Your task to perform on an android device: turn smart compose on in the gmail app Image 0: 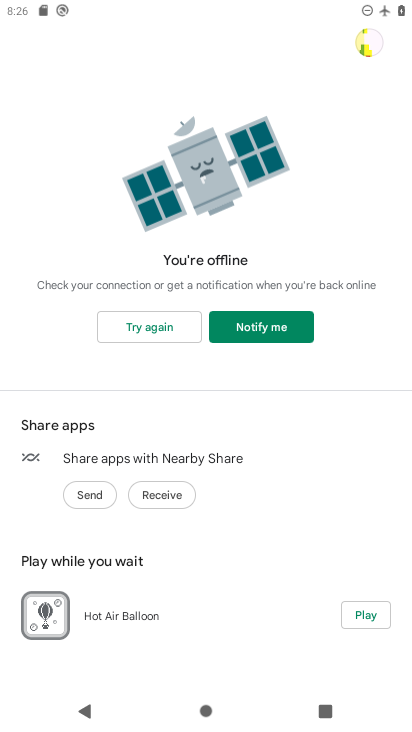
Step 0: press home button
Your task to perform on an android device: turn smart compose on in the gmail app Image 1: 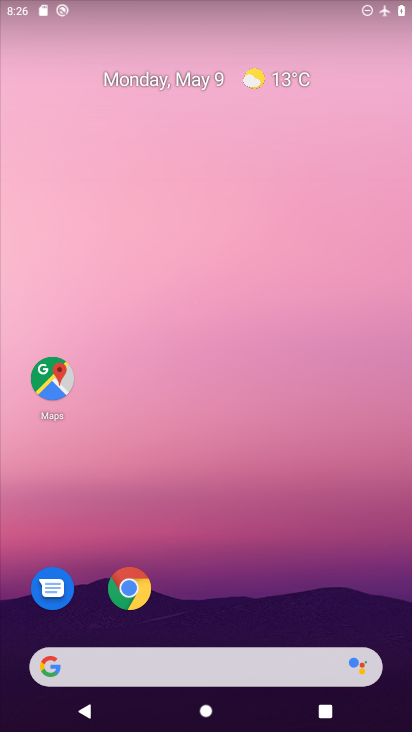
Step 1: drag from (242, 611) to (216, 61)
Your task to perform on an android device: turn smart compose on in the gmail app Image 2: 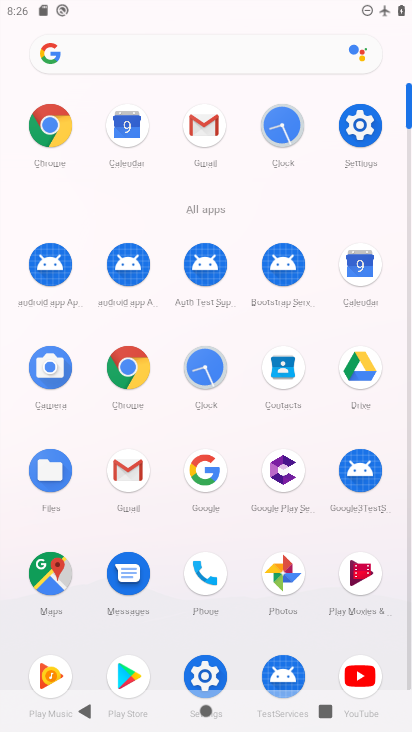
Step 2: click (198, 131)
Your task to perform on an android device: turn smart compose on in the gmail app Image 3: 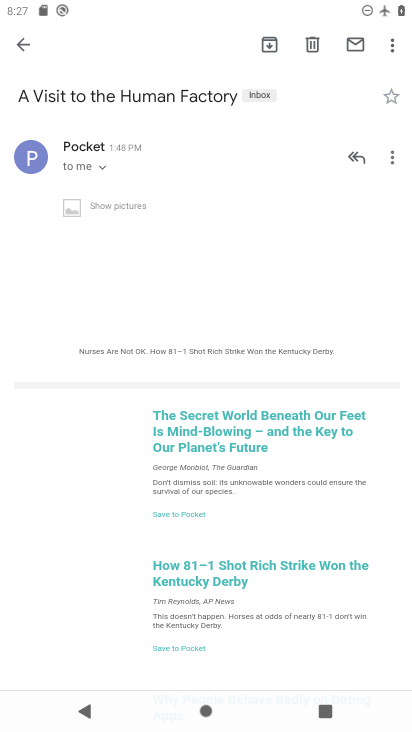
Step 3: click (23, 54)
Your task to perform on an android device: turn smart compose on in the gmail app Image 4: 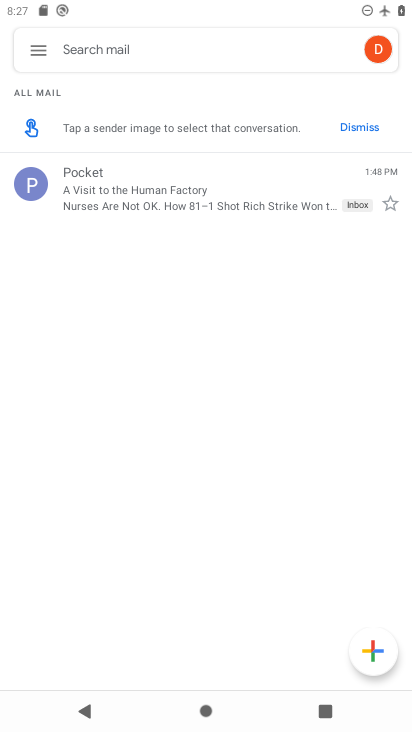
Step 4: click (39, 42)
Your task to perform on an android device: turn smart compose on in the gmail app Image 5: 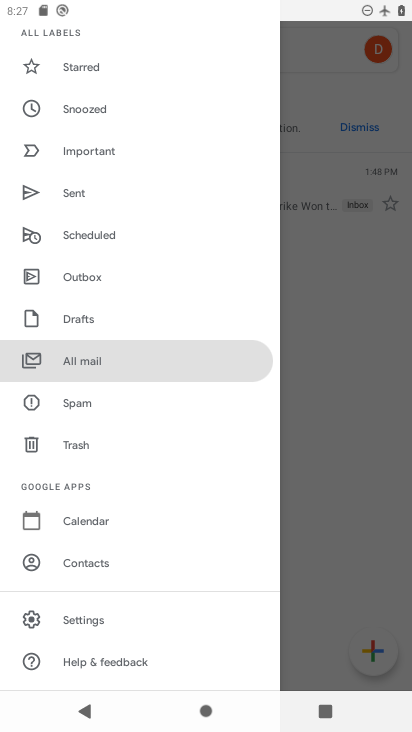
Step 5: click (104, 618)
Your task to perform on an android device: turn smart compose on in the gmail app Image 6: 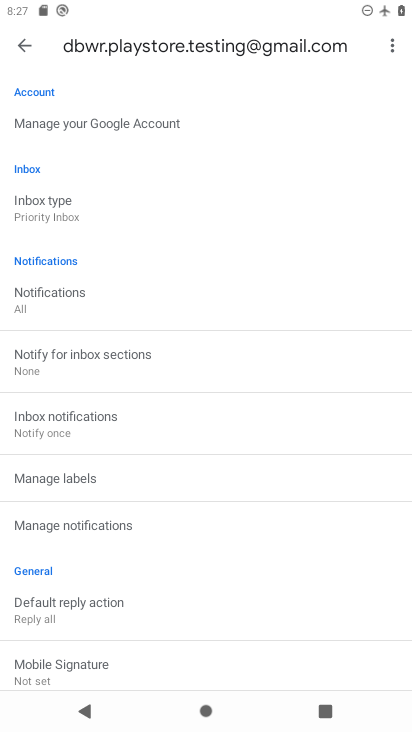
Step 6: drag from (148, 500) to (210, 223)
Your task to perform on an android device: turn smart compose on in the gmail app Image 7: 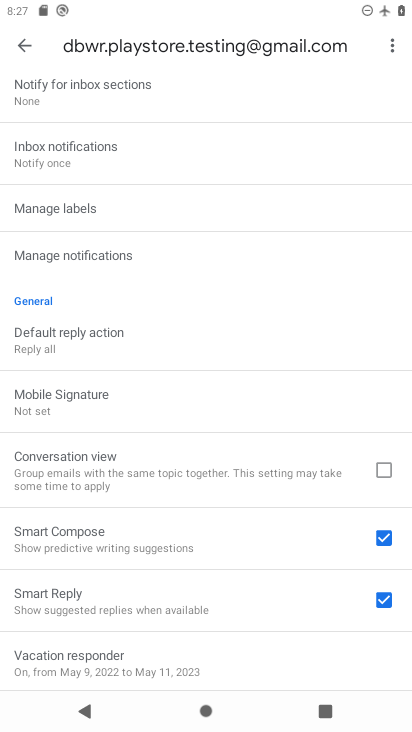
Step 7: click (384, 532)
Your task to perform on an android device: turn smart compose on in the gmail app Image 8: 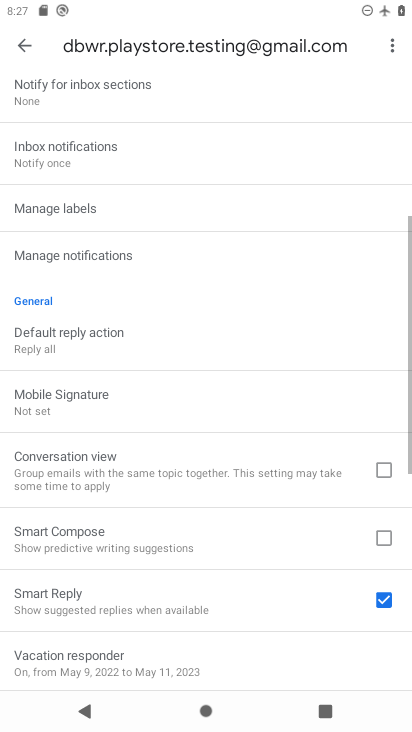
Step 8: task complete